Your task to perform on an android device: Open Google Maps Image 0: 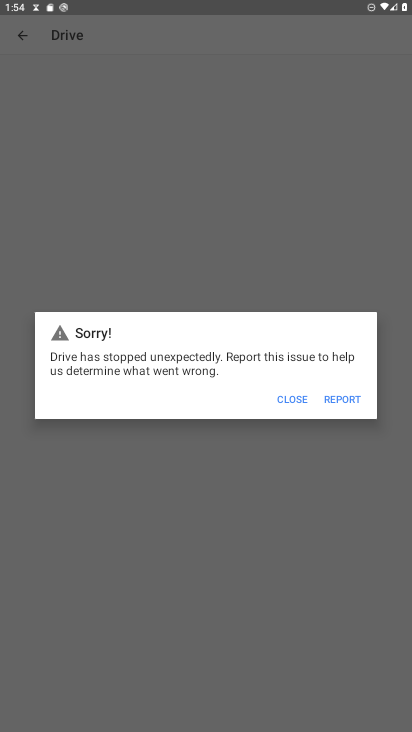
Step 0: press home button
Your task to perform on an android device: Open Google Maps Image 1: 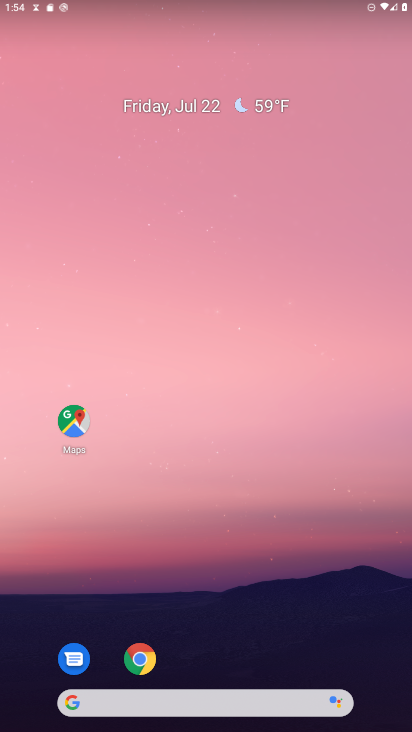
Step 1: drag from (261, 540) to (171, 50)
Your task to perform on an android device: Open Google Maps Image 2: 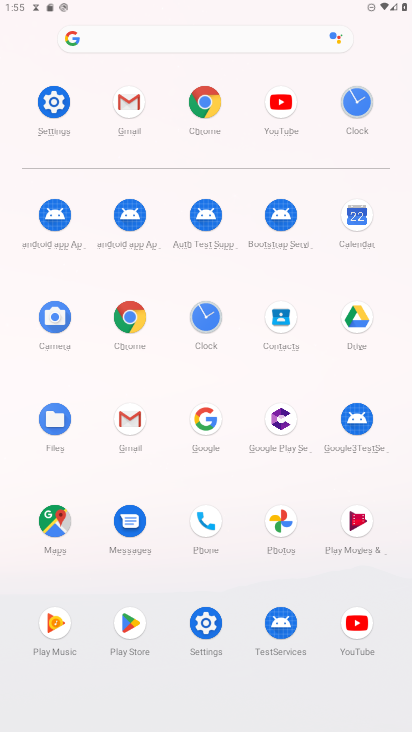
Step 2: click (62, 519)
Your task to perform on an android device: Open Google Maps Image 3: 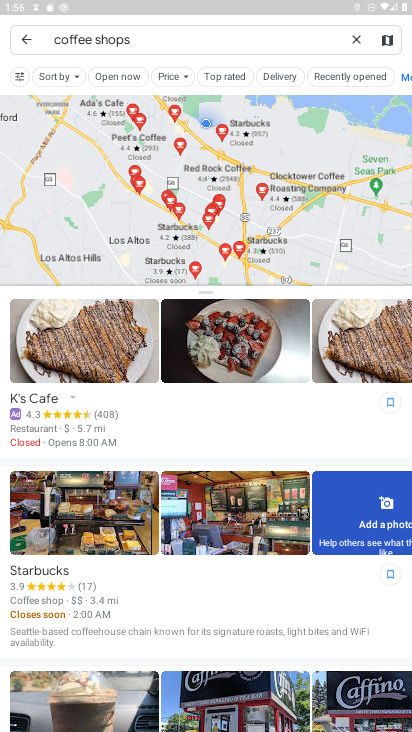
Step 3: task complete